Your task to perform on an android device: Search for flights from NYC to San Francisco Image 0: 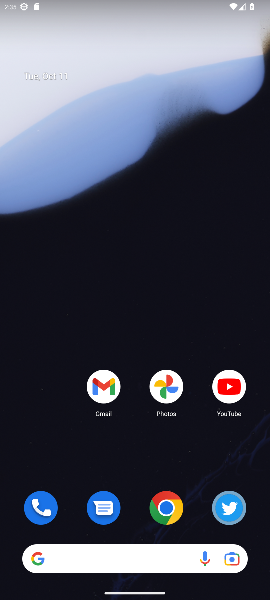
Step 0: click (164, 512)
Your task to perform on an android device: Search for flights from NYC to San Francisco Image 1: 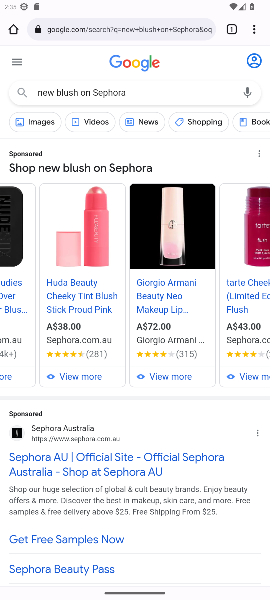
Step 1: click (113, 32)
Your task to perform on an android device: Search for flights from NYC to San Francisco Image 2: 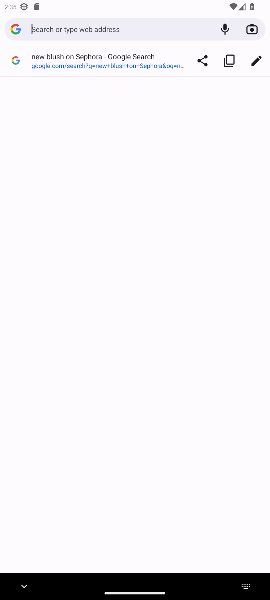
Step 2: type "flights from NYC to San Francisco"
Your task to perform on an android device: Search for flights from NYC to San Francisco Image 3: 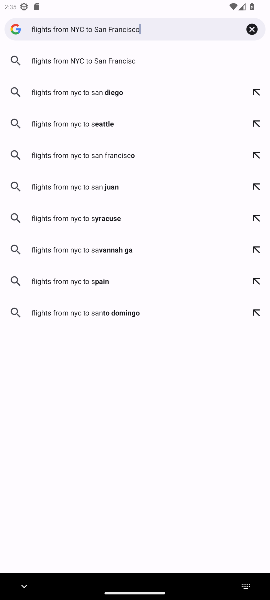
Step 3: type ""
Your task to perform on an android device: Search for flights from NYC to San Francisco Image 4: 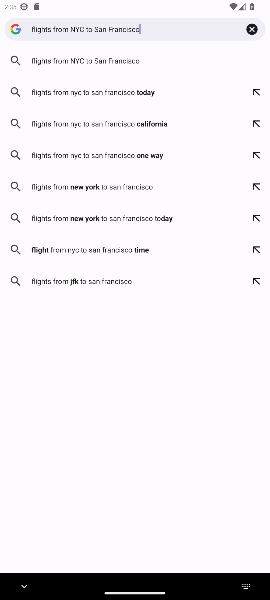
Step 4: press enter
Your task to perform on an android device: Search for flights from NYC to San Francisco Image 5: 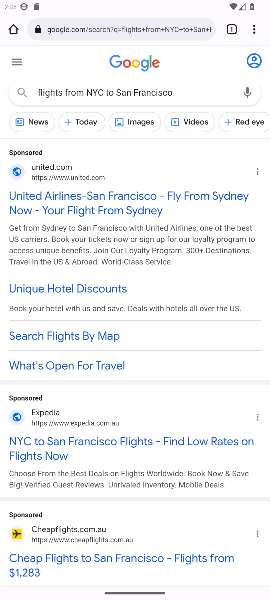
Step 5: drag from (207, 356) to (169, 154)
Your task to perform on an android device: Search for flights from NYC to San Francisco Image 6: 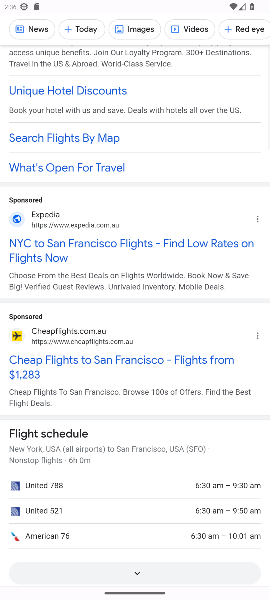
Step 6: drag from (198, 463) to (171, 38)
Your task to perform on an android device: Search for flights from NYC to San Francisco Image 7: 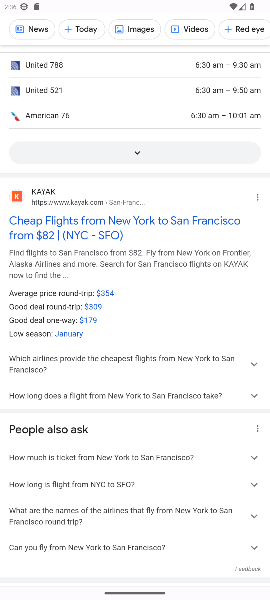
Step 7: drag from (206, 355) to (199, 594)
Your task to perform on an android device: Search for flights from NYC to San Francisco Image 8: 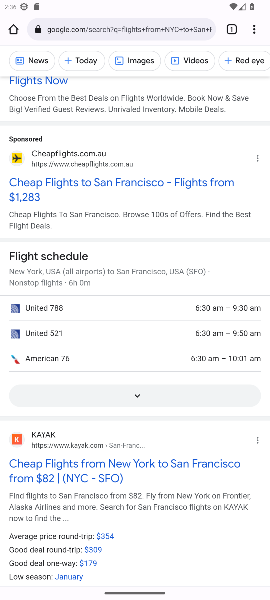
Step 8: drag from (171, 384) to (168, 486)
Your task to perform on an android device: Search for flights from NYC to San Francisco Image 9: 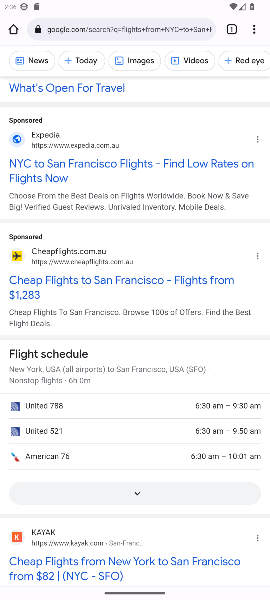
Step 9: click (139, 110)
Your task to perform on an android device: Search for flights from NYC to San Francisco Image 10: 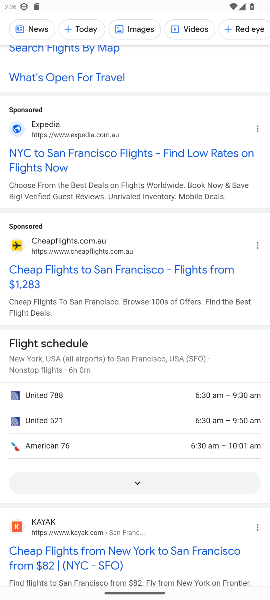
Step 10: click (139, 484)
Your task to perform on an android device: Search for flights from NYC to San Francisco Image 11: 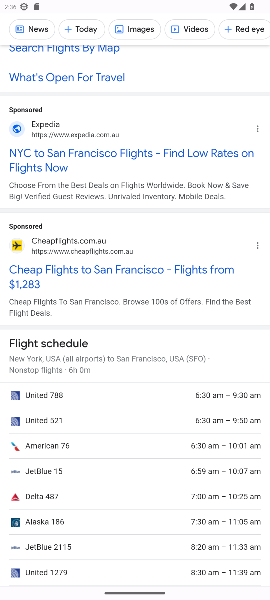
Step 11: task complete